Your task to perform on an android device: install app "LiveIn - Share Your Moment" Image 0: 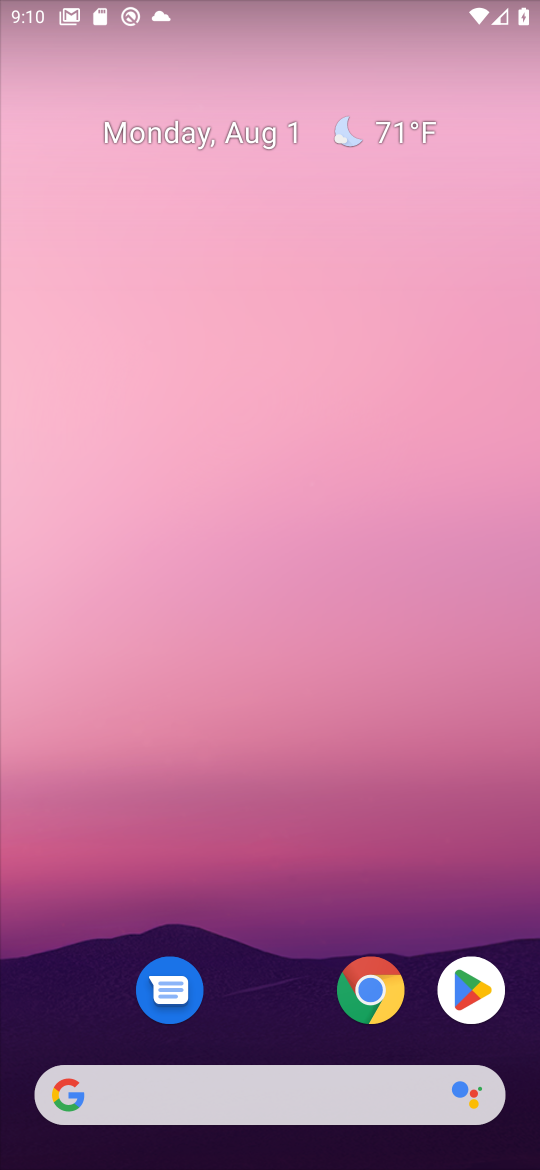
Step 0: press home button
Your task to perform on an android device: install app "LiveIn - Share Your Moment" Image 1: 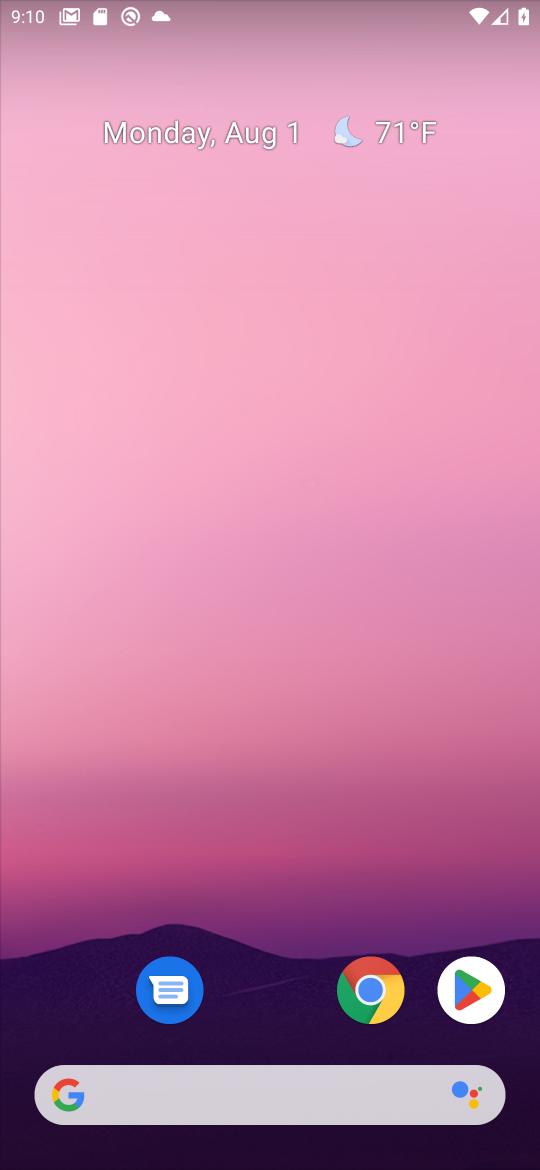
Step 1: click (467, 967)
Your task to perform on an android device: install app "LiveIn - Share Your Moment" Image 2: 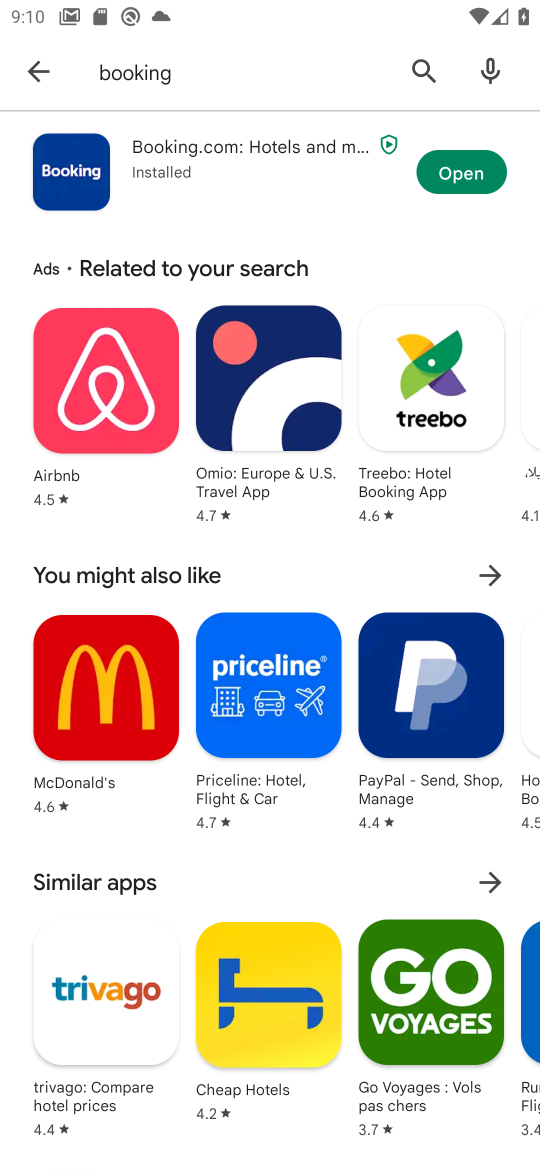
Step 2: click (417, 67)
Your task to perform on an android device: install app "LiveIn - Share Your Moment" Image 3: 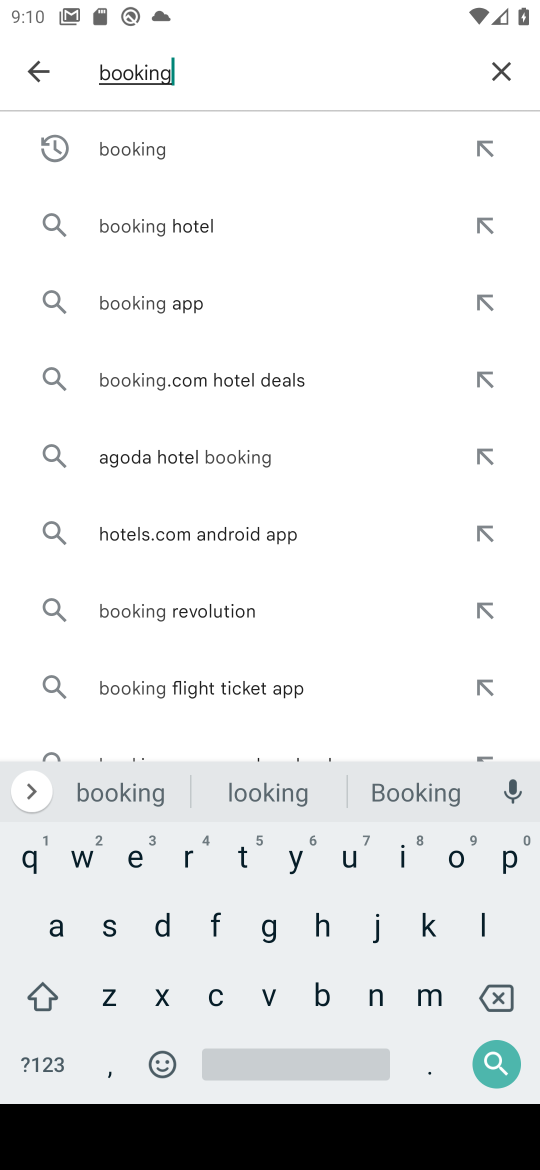
Step 3: click (492, 66)
Your task to perform on an android device: install app "LiveIn - Share Your Moment" Image 4: 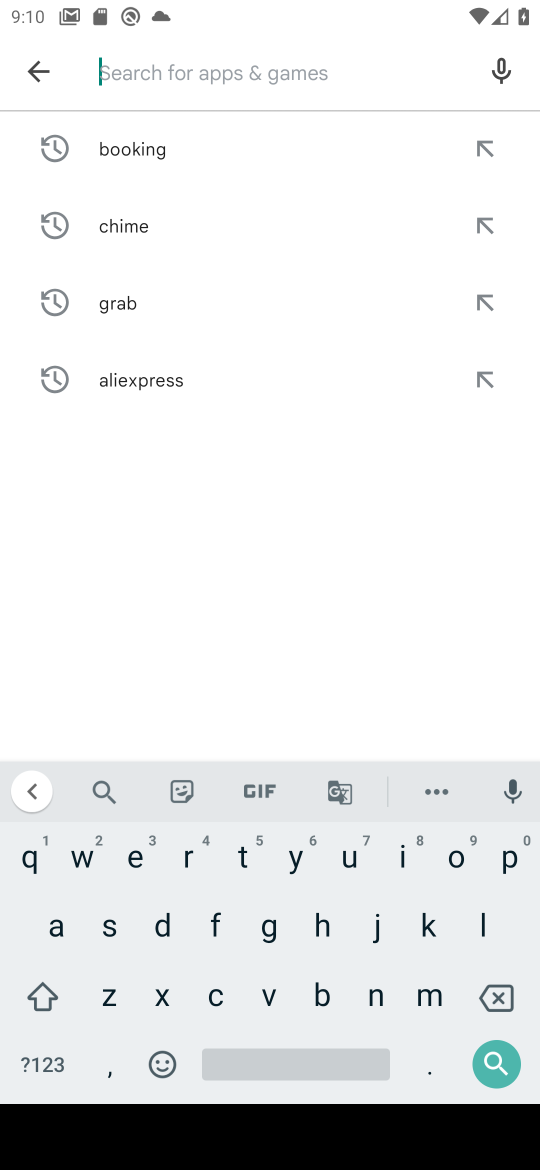
Step 4: click (482, 922)
Your task to perform on an android device: install app "LiveIn - Share Your Moment" Image 5: 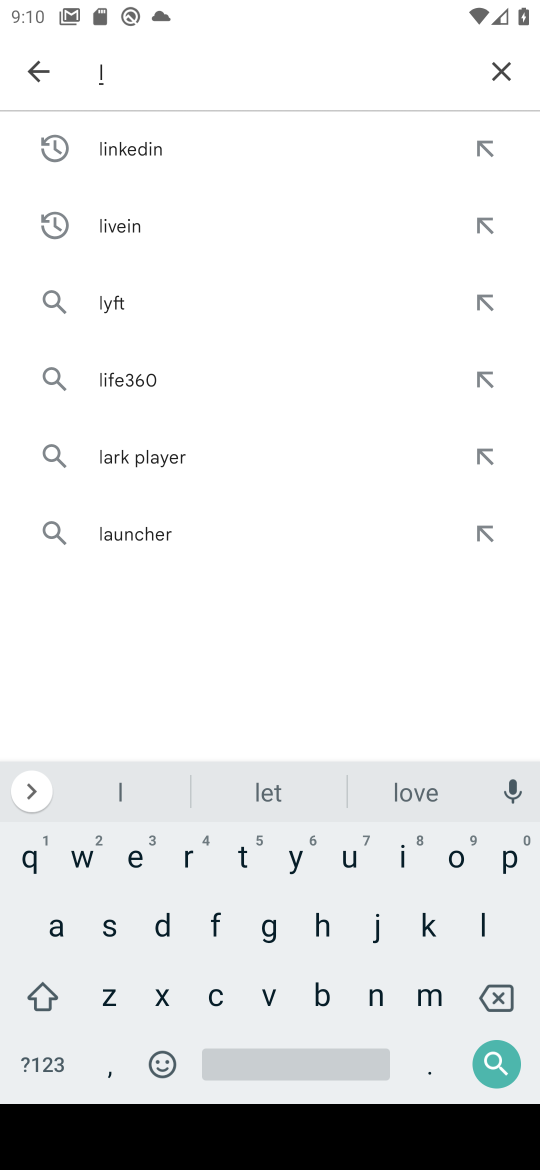
Step 5: click (398, 851)
Your task to perform on an android device: install app "LiveIn - Share Your Moment" Image 6: 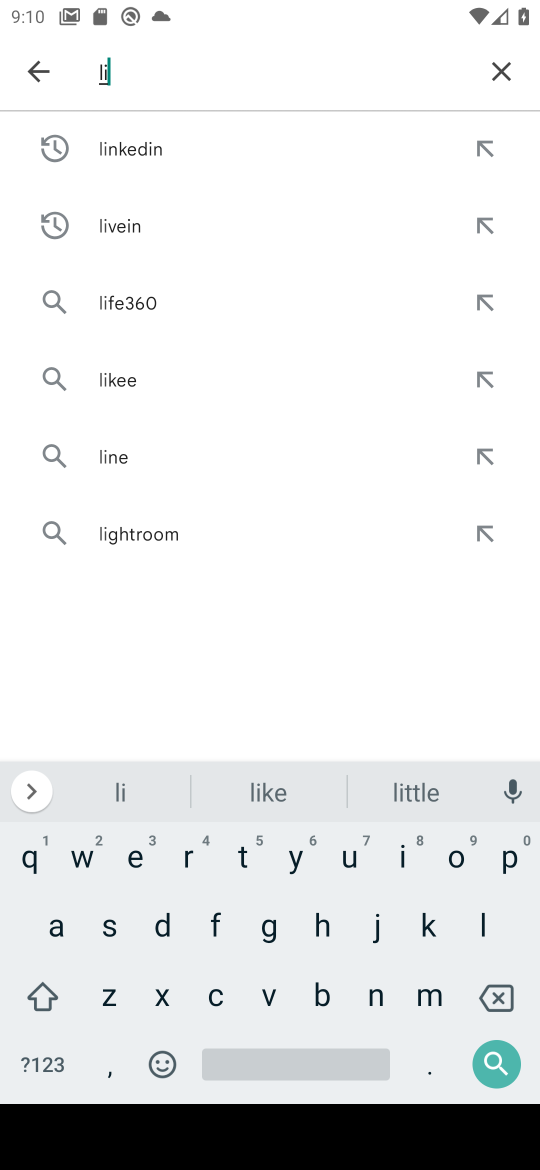
Step 6: click (261, 992)
Your task to perform on an android device: install app "LiveIn - Share Your Moment" Image 7: 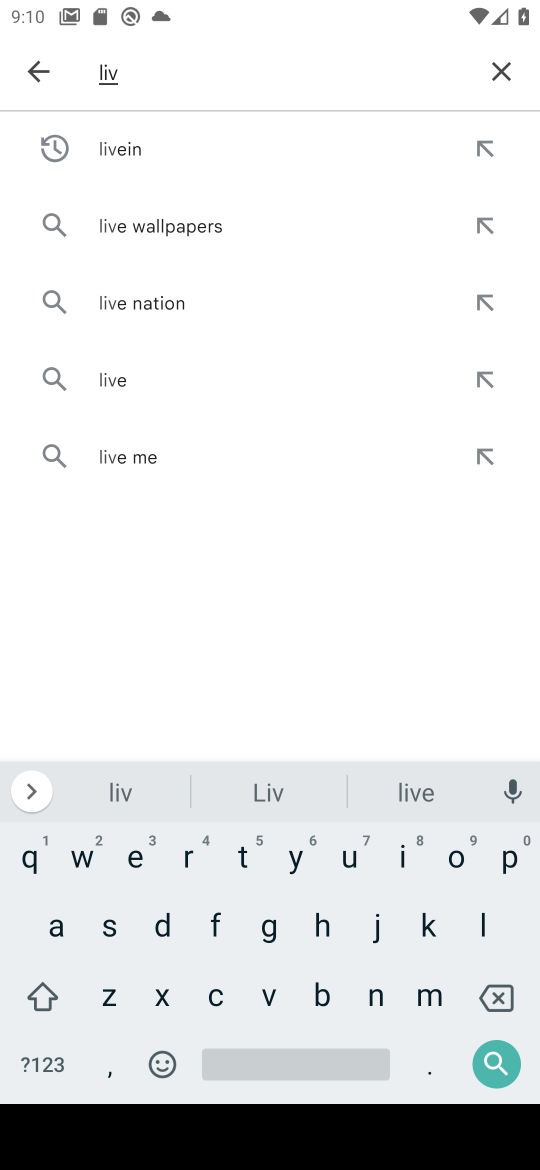
Step 7: click (135, 145)
Your task to perform on an android device: install app "LiveIn - Share Your Moment" Image 8: 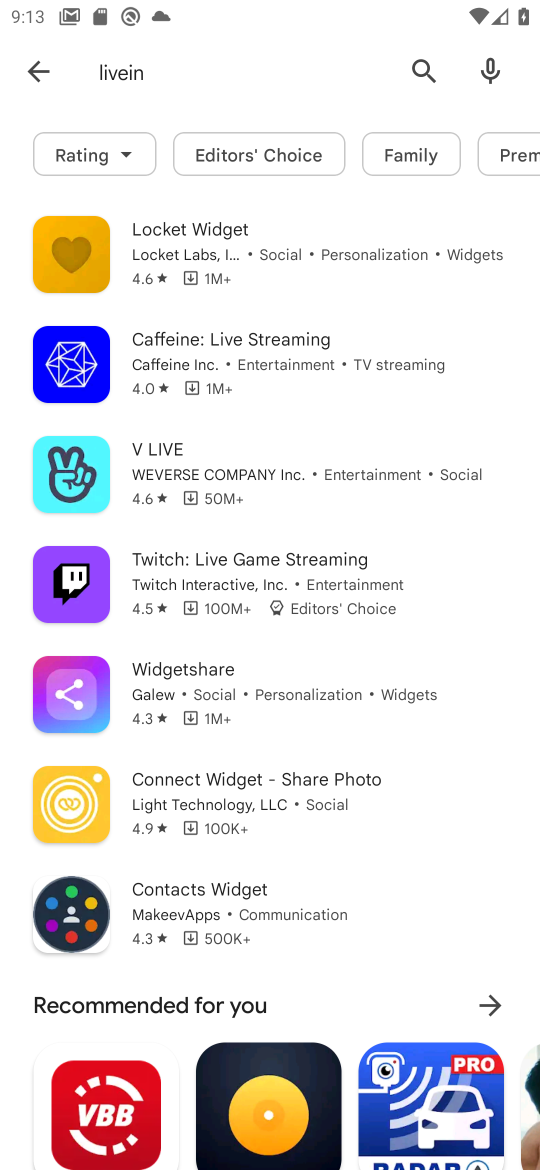
Step 8: task complete